Your task to perform on an android device: Search for "dell xps" on bestbuy.com, select the first entry, add it to the cart, then select checkout. Image 0: 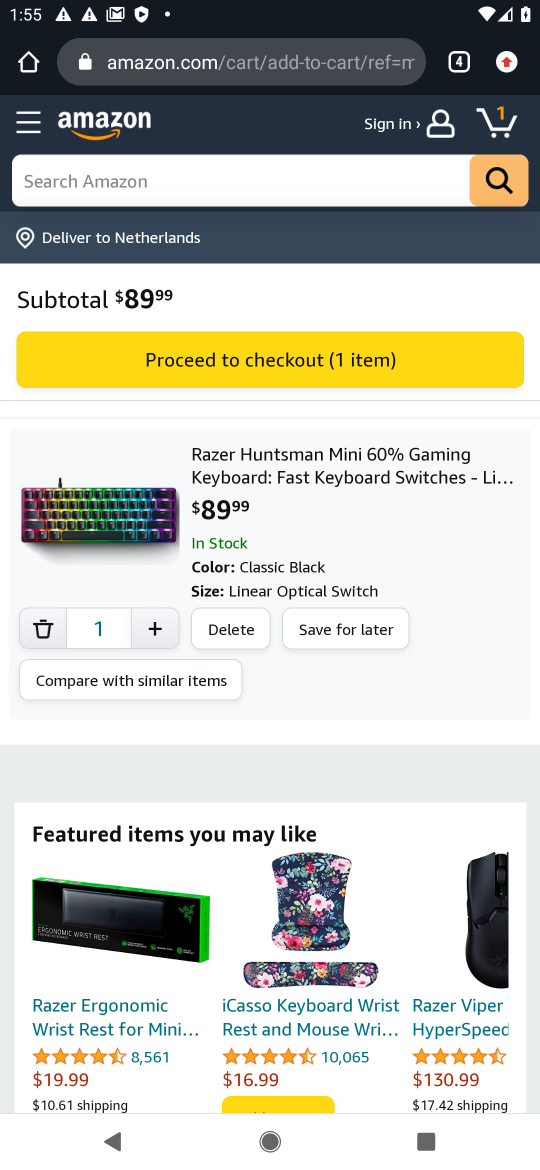
Step 0: click (192, 352)
Your task to perform on an android device: Search for "dell xps" on bestbuy.com, select the first entry, add it to the cart, then select checkout. Image 1: 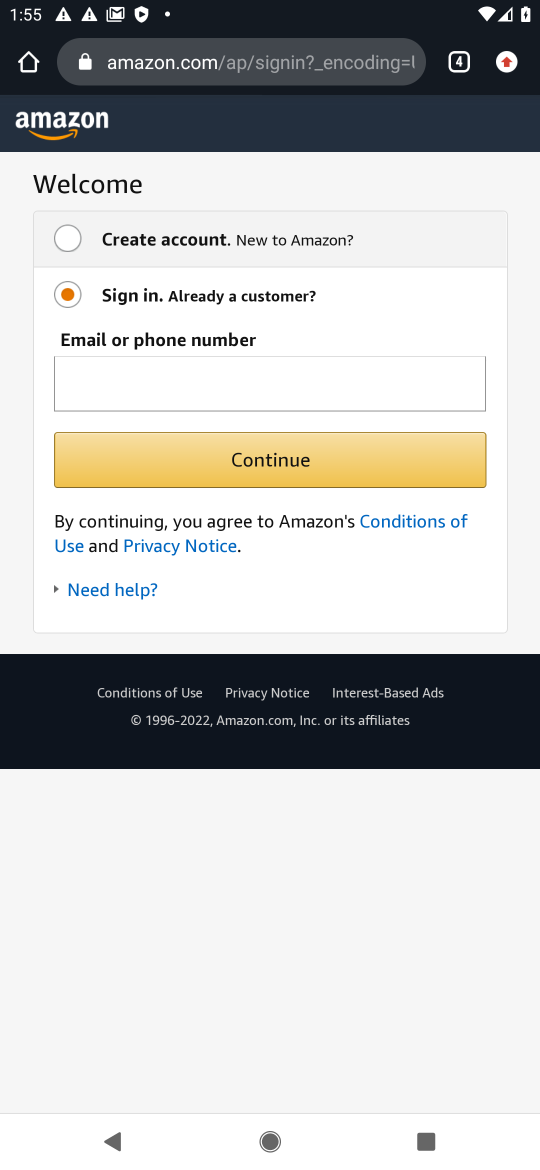
Step 1: task complete